Your task to perform on an android device: Search for "razer naga" on amazon.com, select the first entry, and add it to the cart. Image 0: 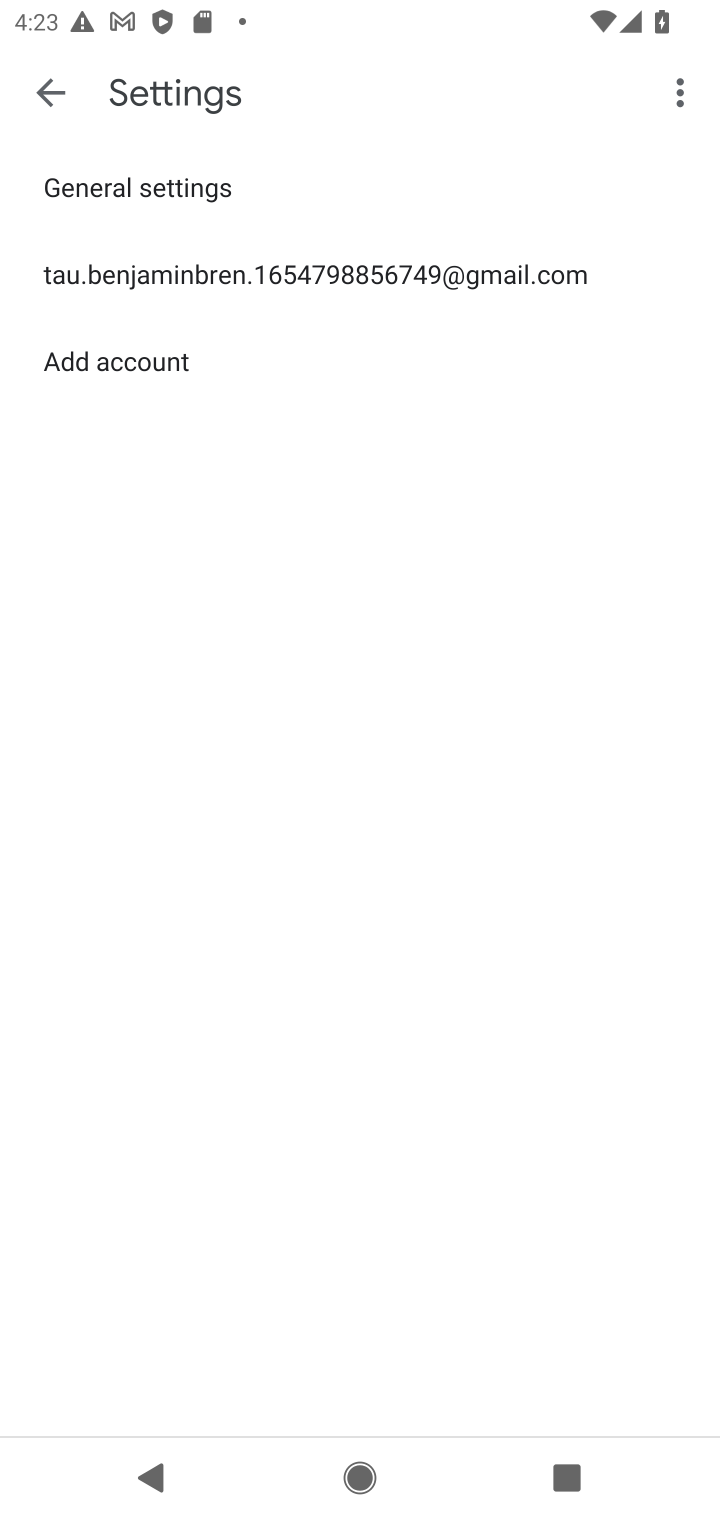
Step 0: press home button
Your task to perform on an android device: Search for "razer naga" on amazon.com, select the first entry, and add it to the cart. Image 1: 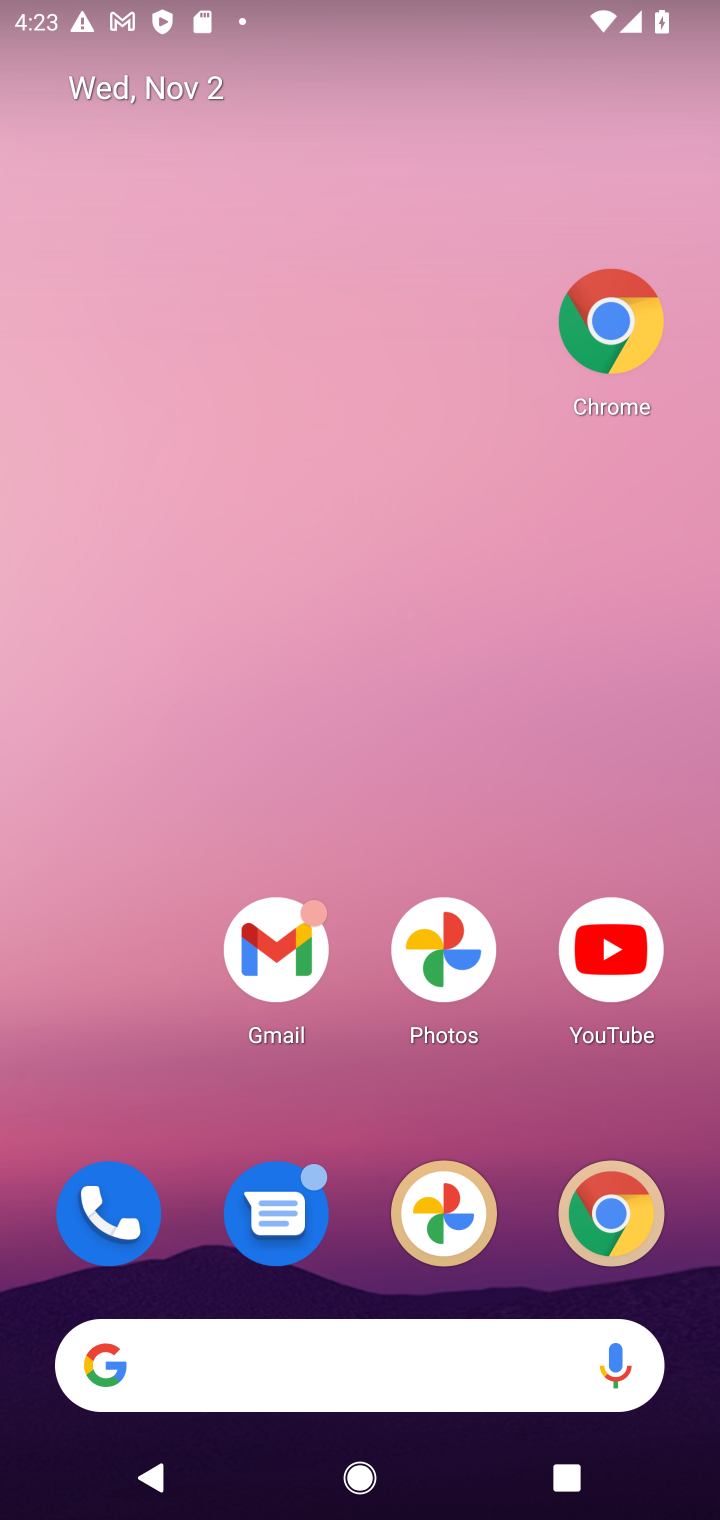
Step 1: drag from (515, 1096) to (585, 464)
Your task to perform on an android device: Search for "razer naga" on amazon.com, select the first entry, and add it to the cart. Image 2: 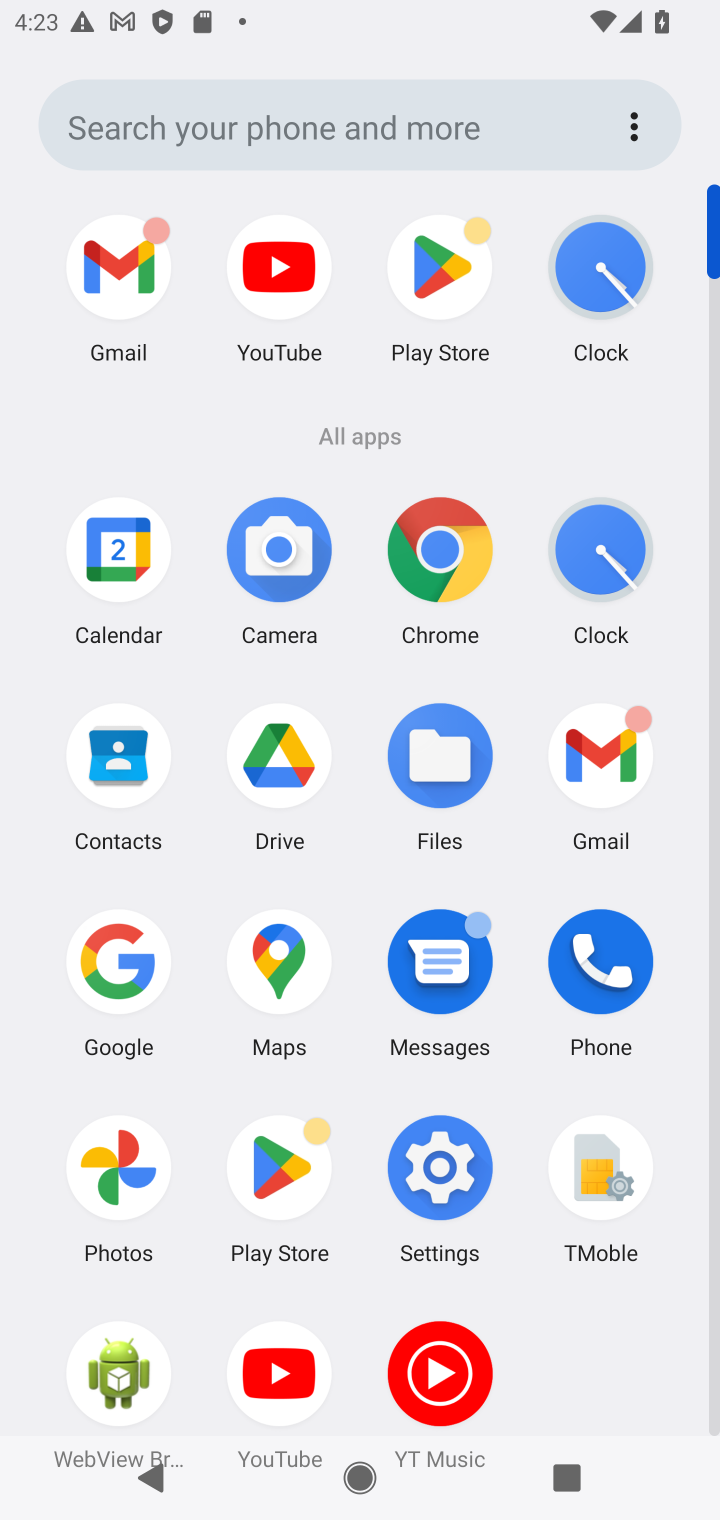
Step 2: click (121, 978)
Your task to perform on an android device: Search for "razer naga" on amazon.com, select the first entry, and add it to the cart. Image 3: 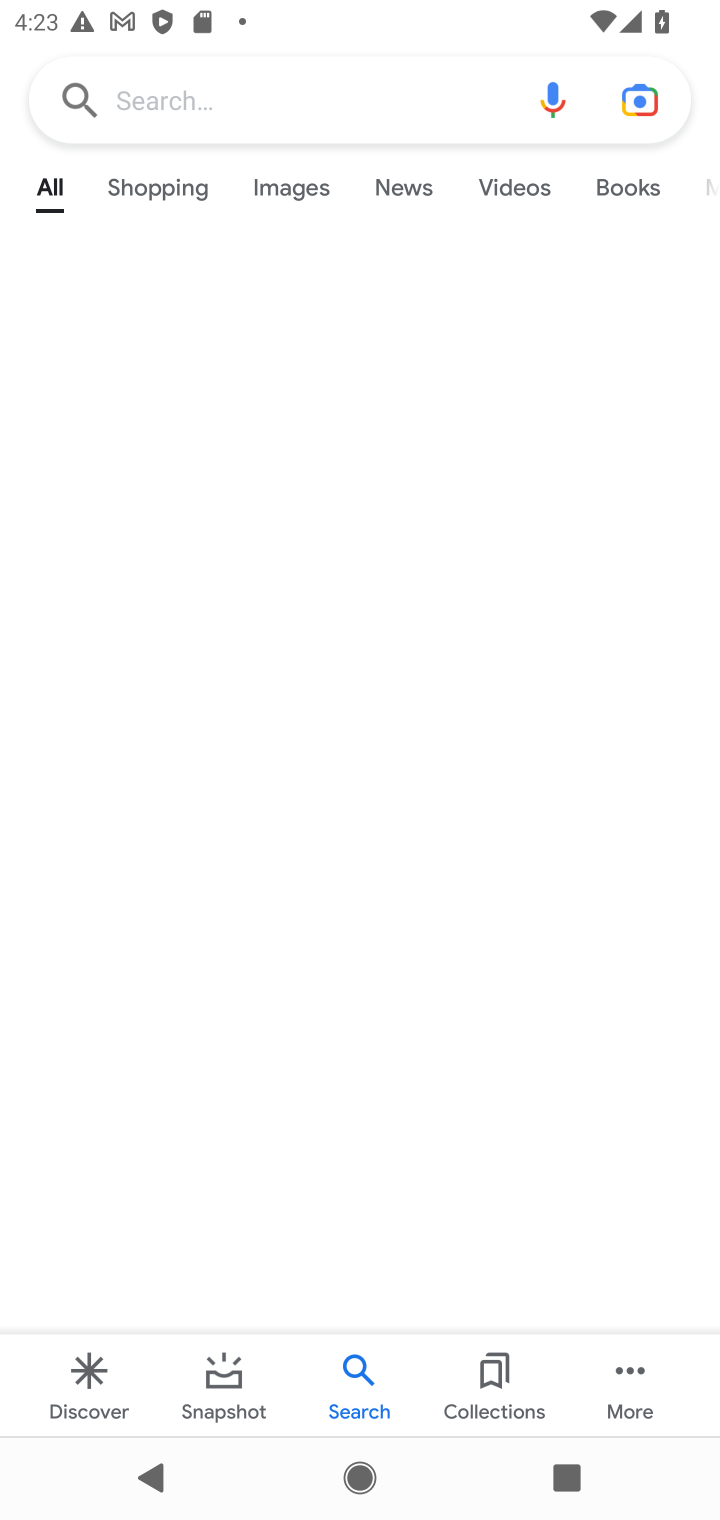
Step 3: click (243, 115)
Your task to perform on an android device: Search for "razer naga" on amazon.com, select the first entry, and add it to the cart. Image 4: 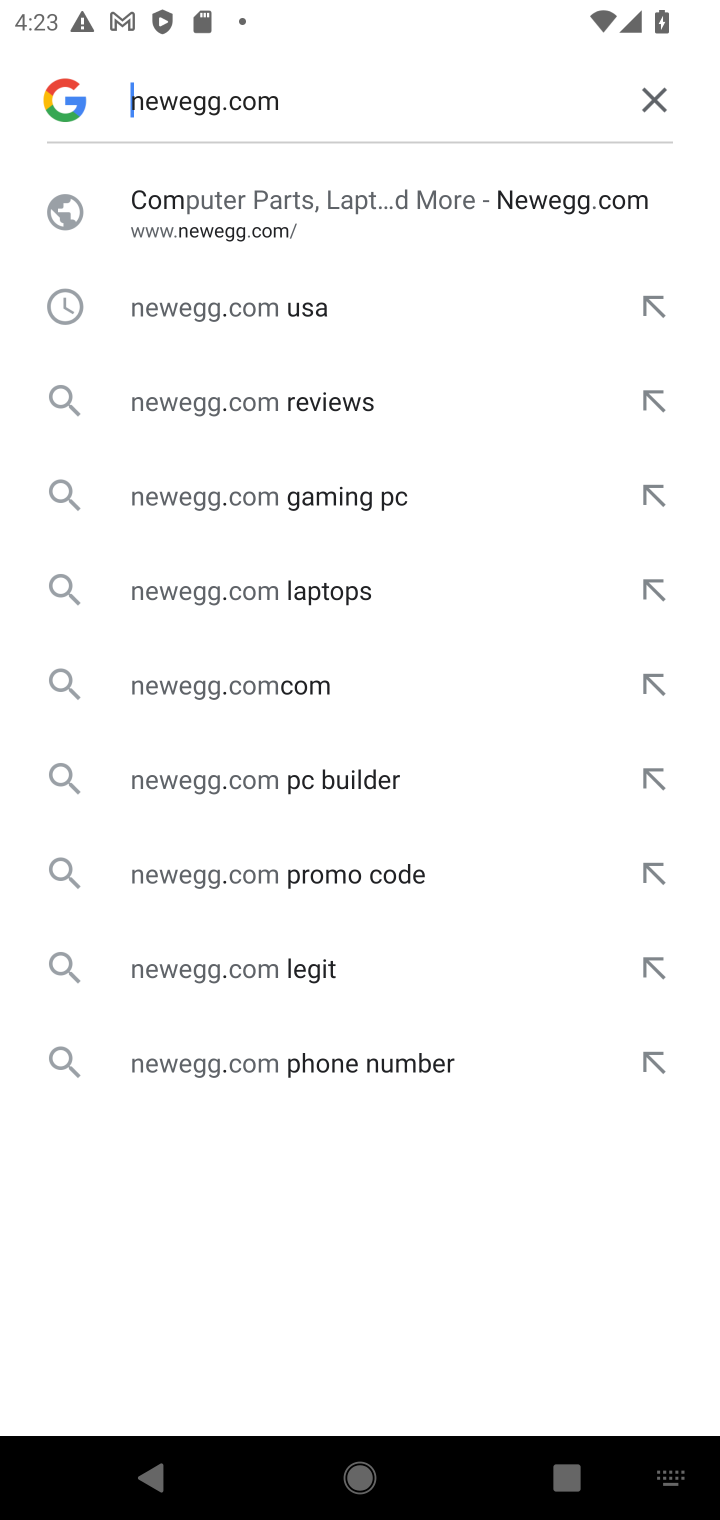
Step 4: click (649, 88)
Your task to perform on an android device: Search for "razer naga" on amazon.com, select the first entry, and add it to the cart. Image 5: 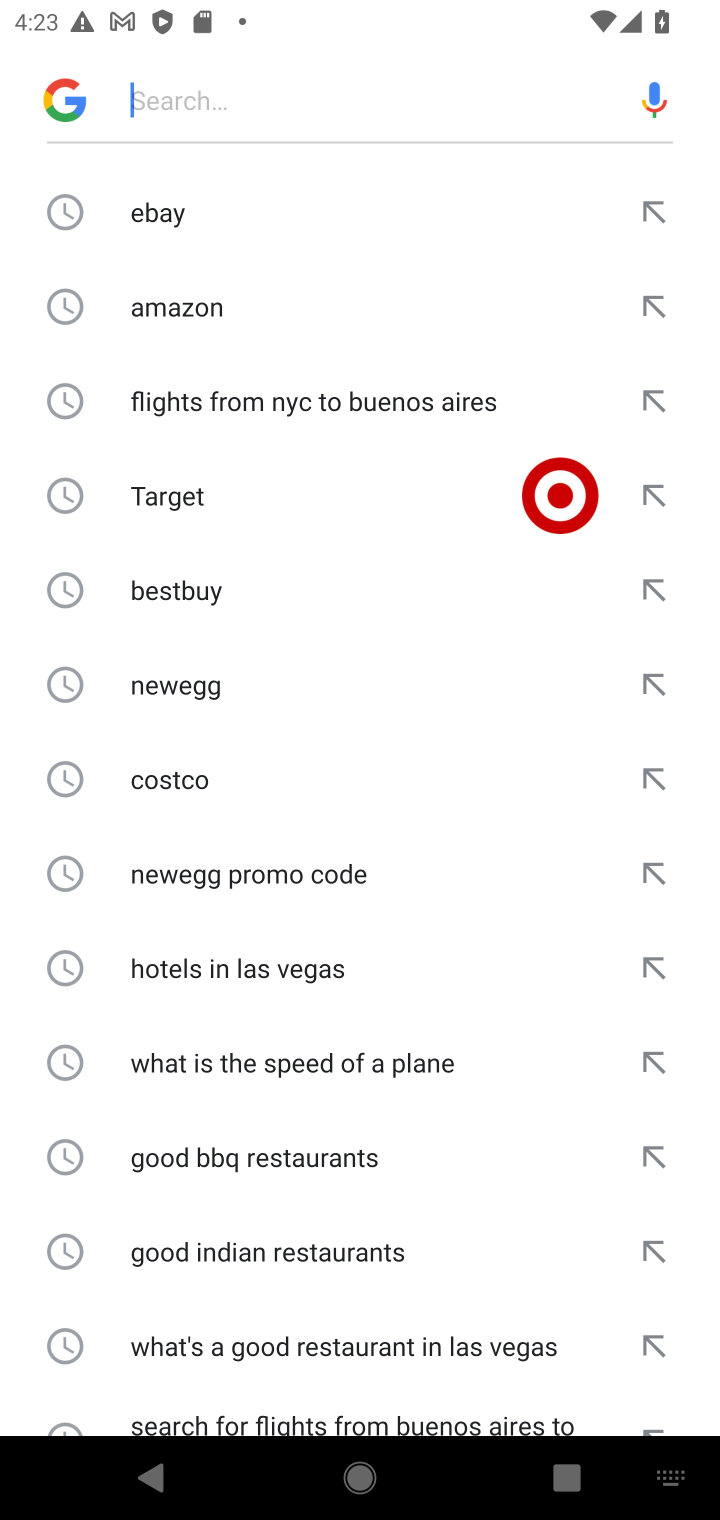
Step 5: type "amazon.com"
Your task to perform on an android device: Search for "razer naga" on amazon.com, select the first entry, and add it to the cart. Image 6: 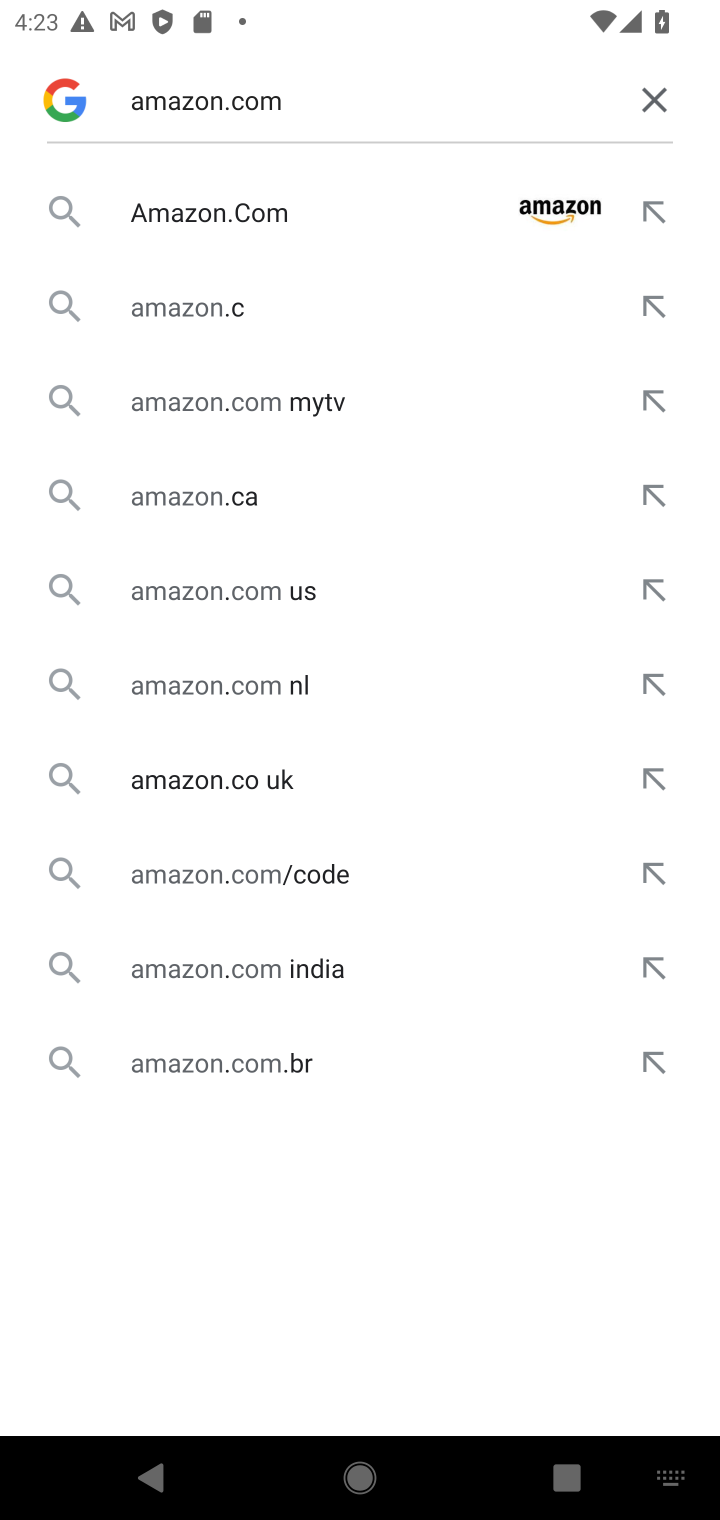
Step 6: click (246, 224)
Your task to perform on an android device: Search for "razer naga" on amazon.com, select the first entry, and add it to the cart. Image 7: 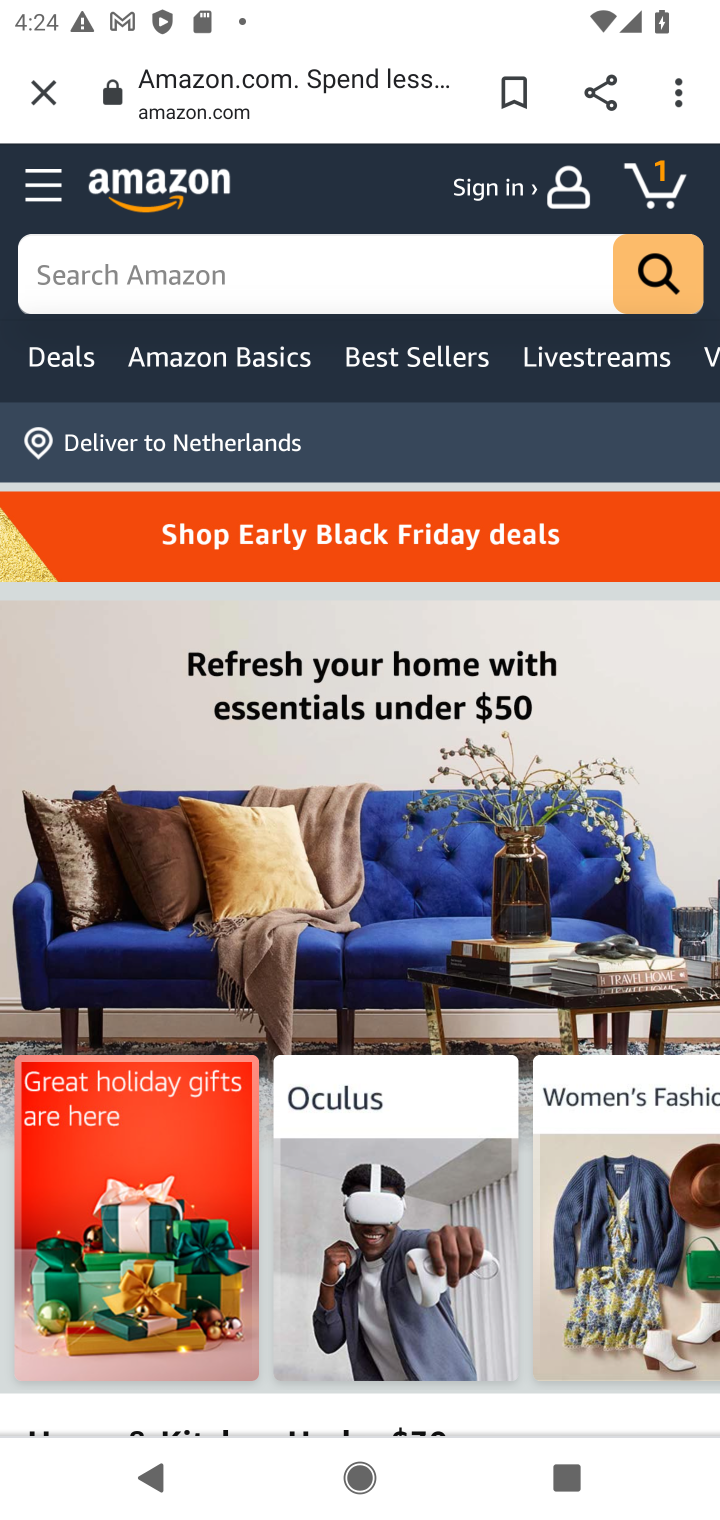
Step 7: click (349, 249)
Your task to perform on an android device: Search for "razer naga" on amazon.com, select the first entry, and add it to the cart. Image 8: 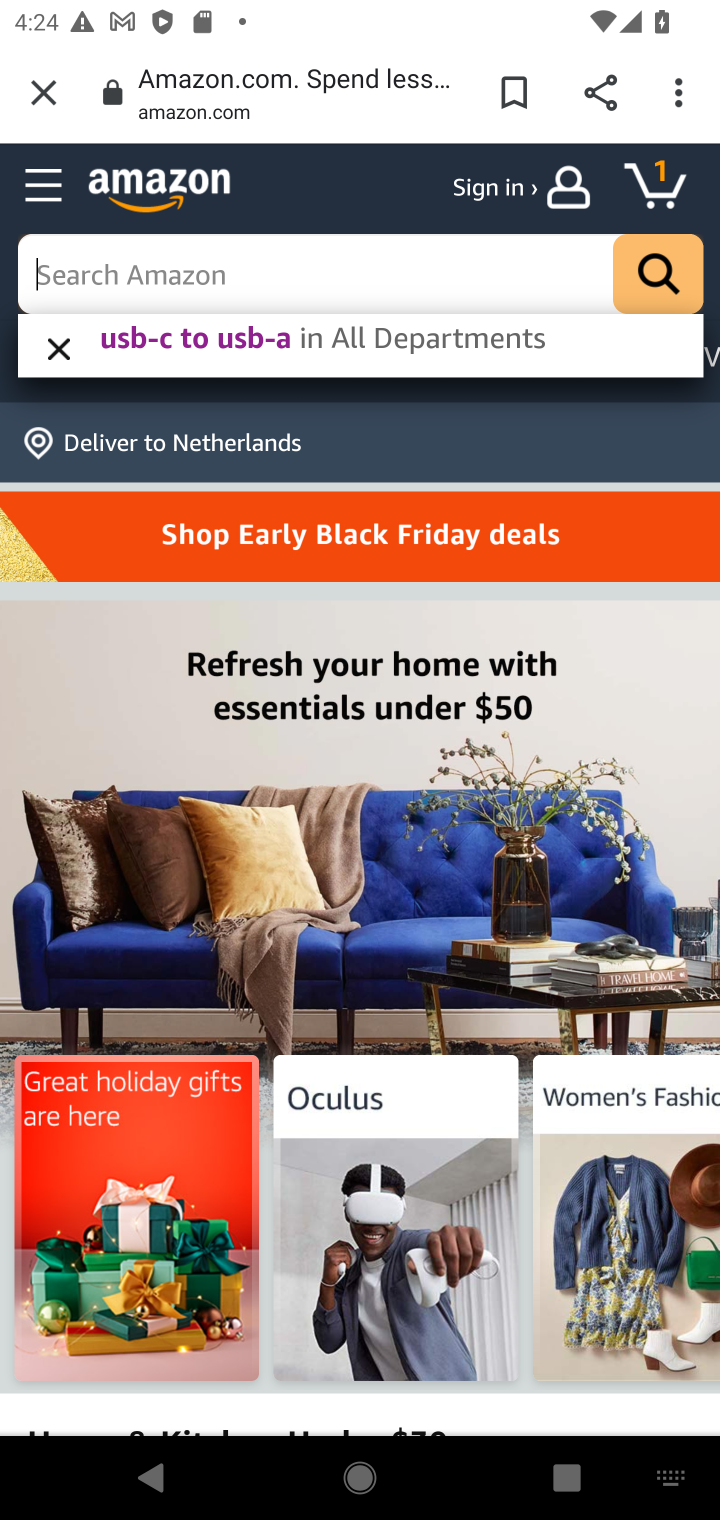
Step 8: type "razer naga"
Your task to perform on an android device: Search for "razer naga" on amazon.com, select the first entry, and add it to the cart. Image 9: 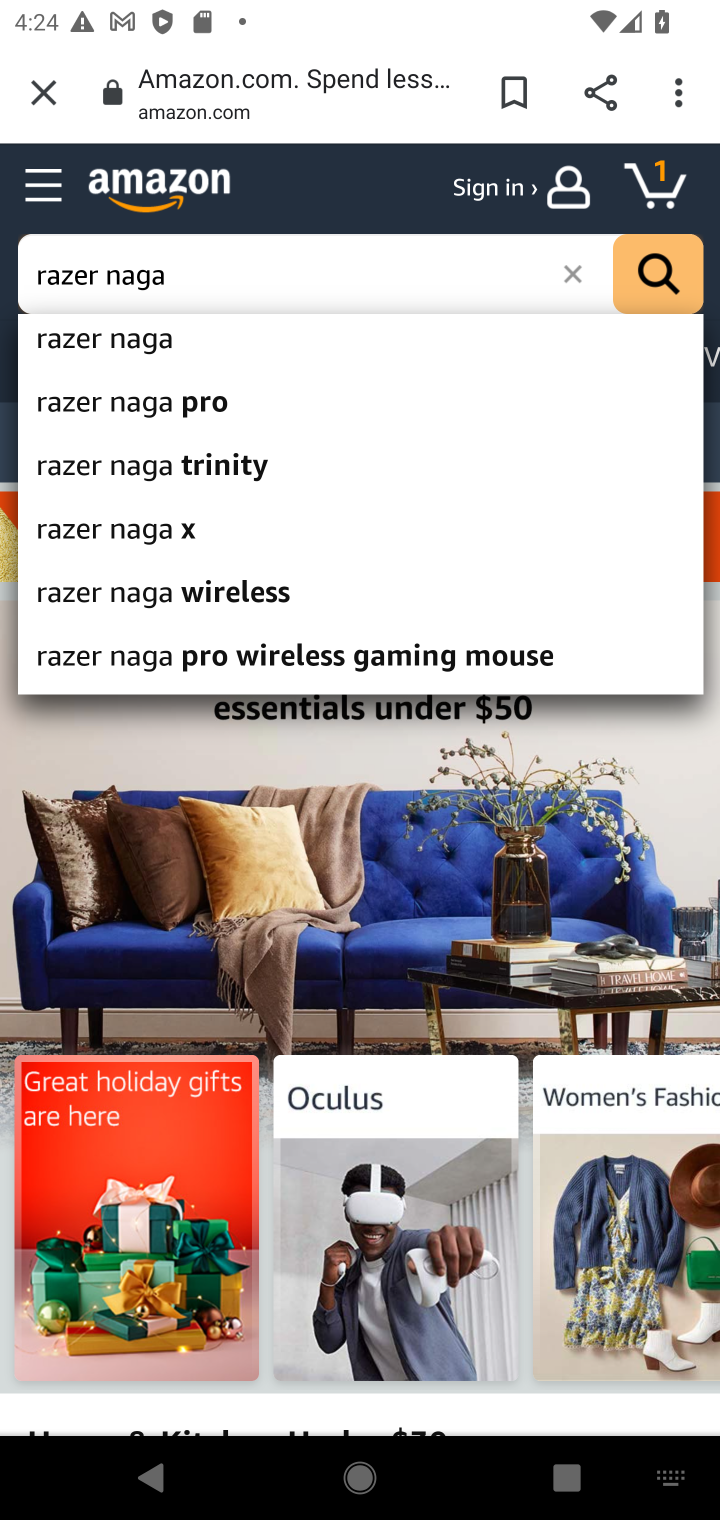
Step 9: click (289, 339)
Your task to perform on an android device: Search for "razer naga" on amazon.com, select the first entry, and add it to the cart. Image 10: 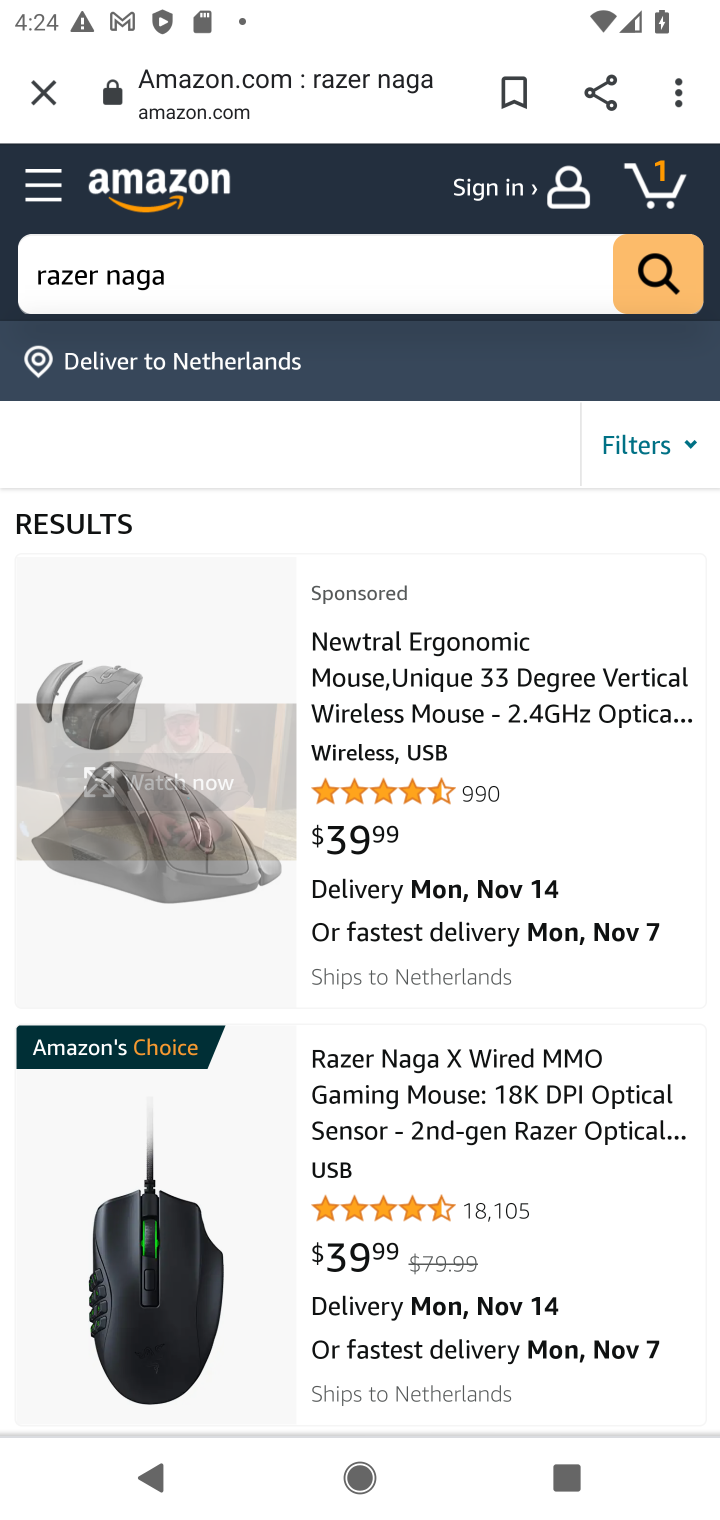
Step 10: click (186, 738)
Your task to perform on an android device: Search for "razer naga" on amazon.com, select the first entry, and add it to the cart. Image 11: 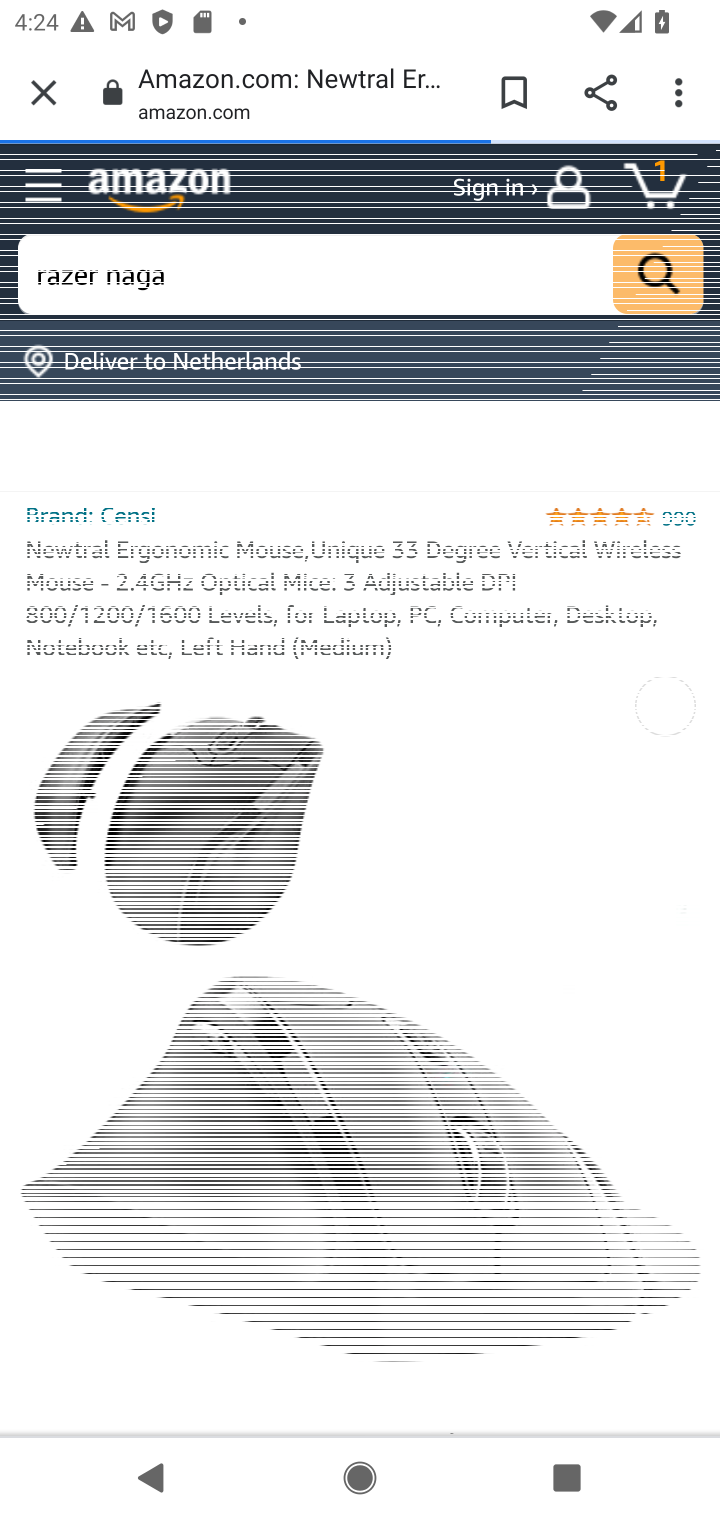
Step 11: drag from (327, 1014) to (413, 690)
Your task to perform on an android device: Search for "razer naga" on amazon.com, select the first entry, and add it to the cart. Image 12: 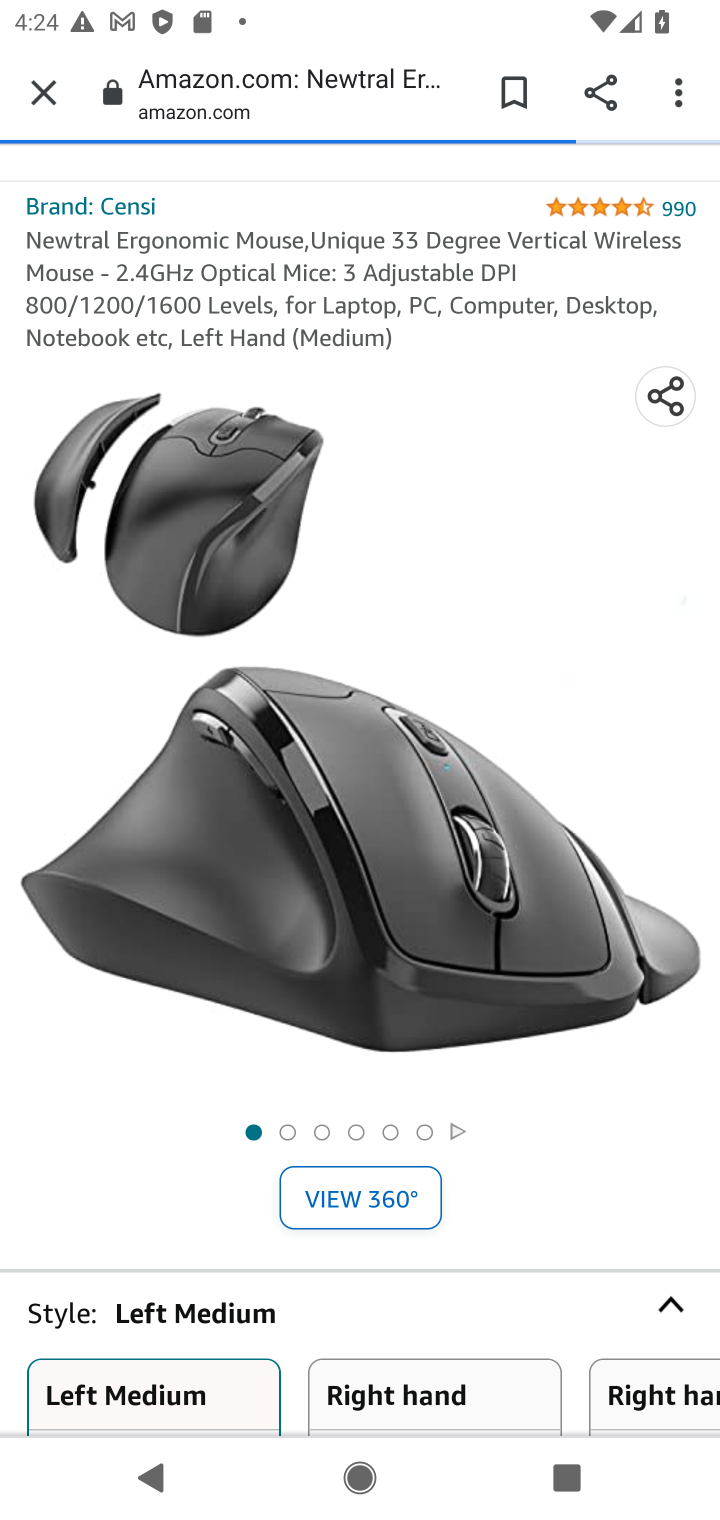
Step 12: drag from (322, 1088) to (413, 305)
Your task to perform on an android device: Search for "razer naga" on amazon.com, select the first entry, and add it to the cart. Image 13: 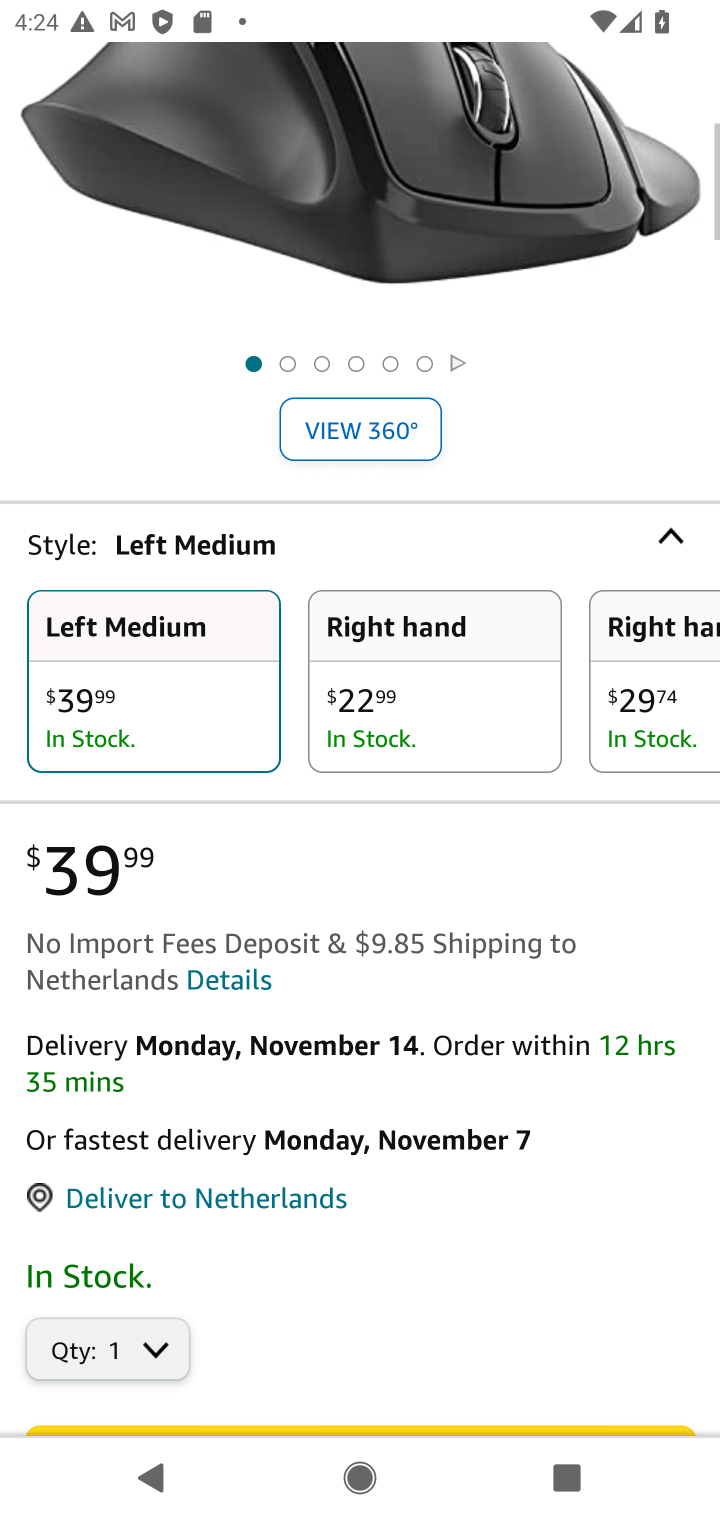
Step 13: drag from (372, 723) to (442, 300)
Your task to perform on an android device: Search for "razer naga" on amazon.com, select the first entry, and add it to the cart. Image 14: 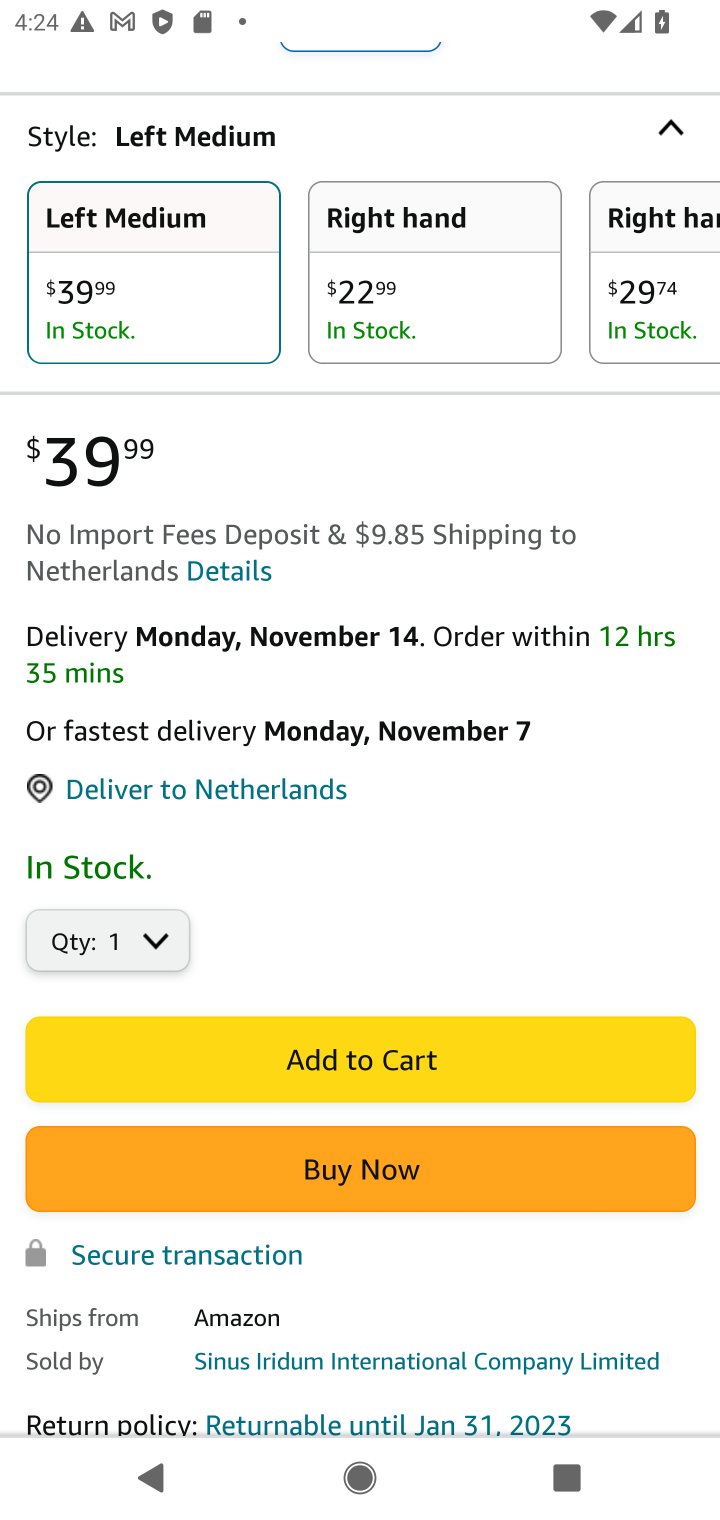
Step 14: click (465, 1086)
Your task to perform on an android device: Search for "razer naga" on amazon.com, select the first entry, and add it to the cart. Image 15: 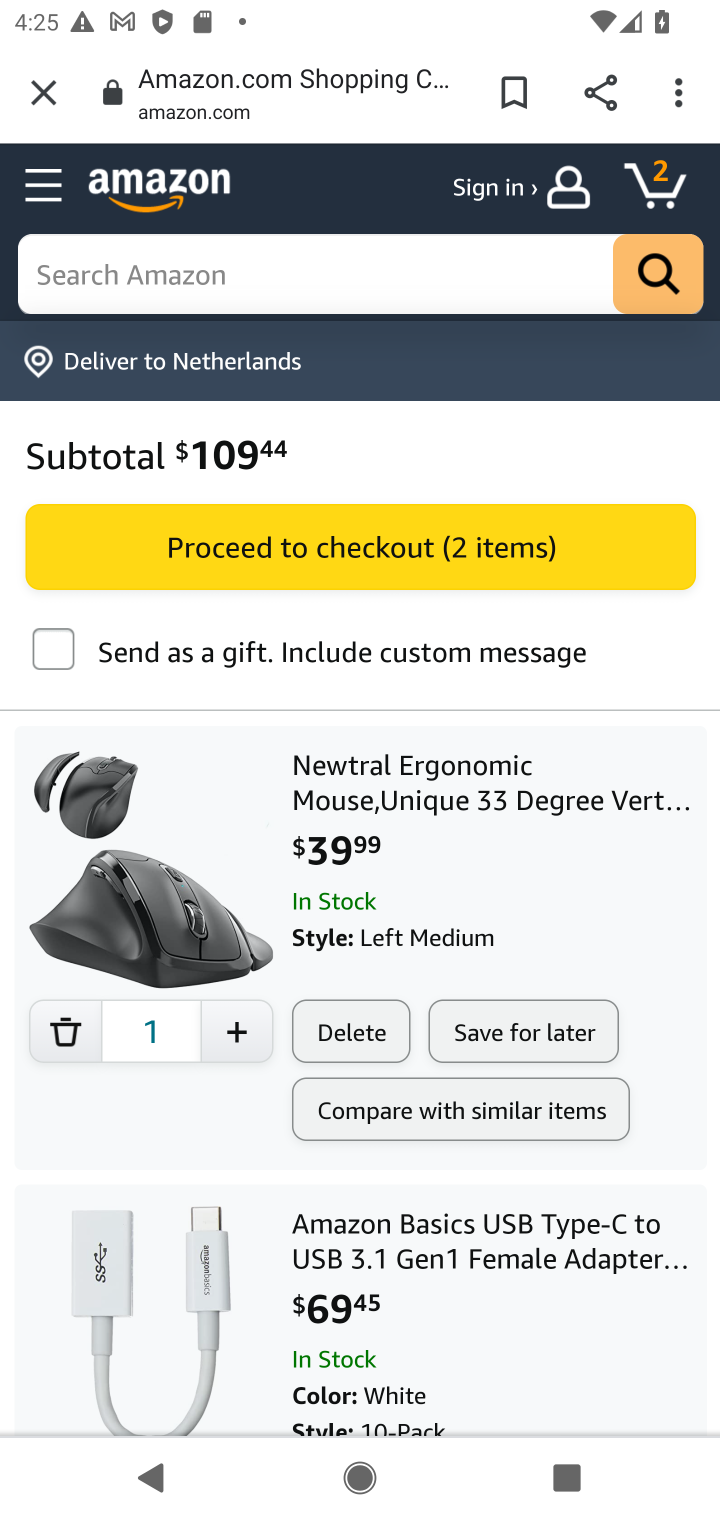
Step 15: task complete